Your task to perform on an android device: Do I have any events today? Image 0: 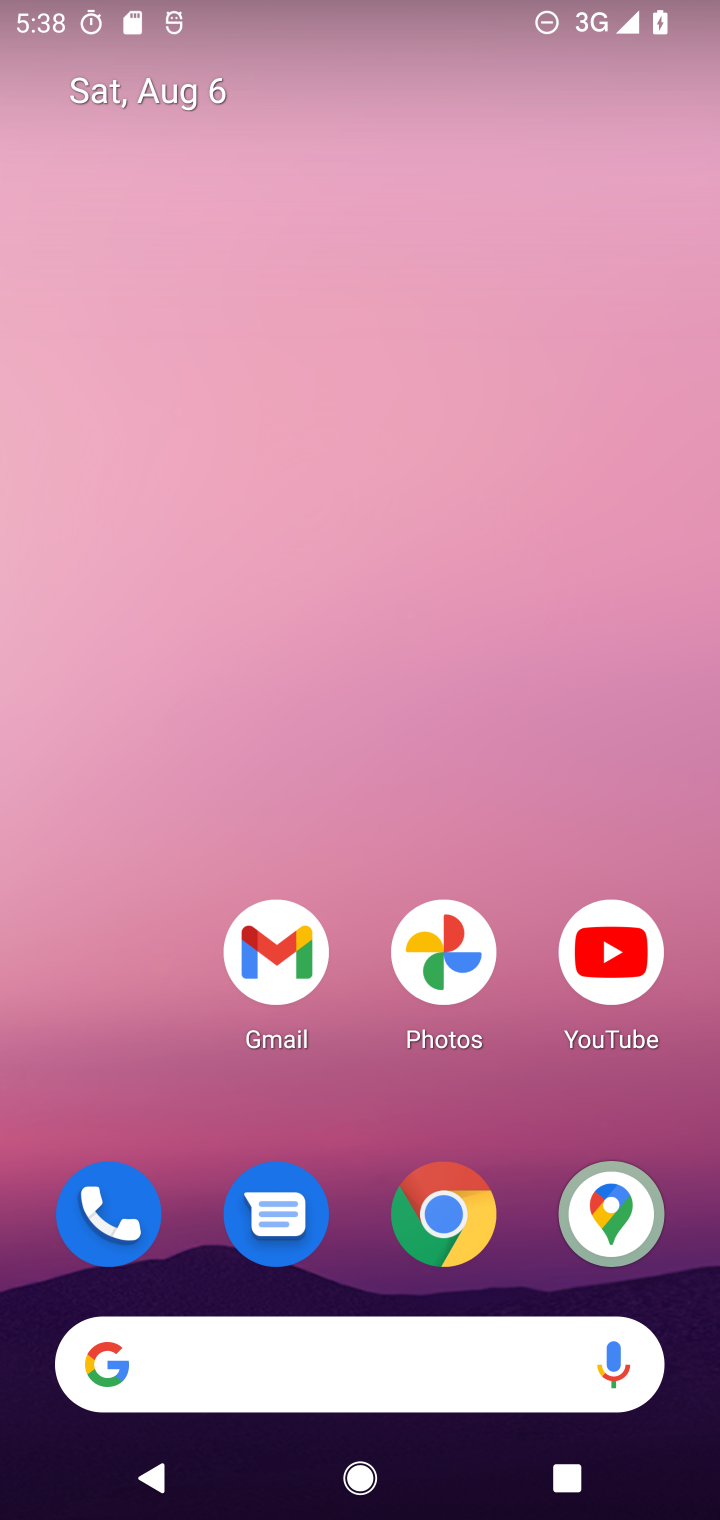
Step 0: drag from (342, 1231) to (291, 220)
Your task to perform on an android device: Do I have any events today? Image 1: 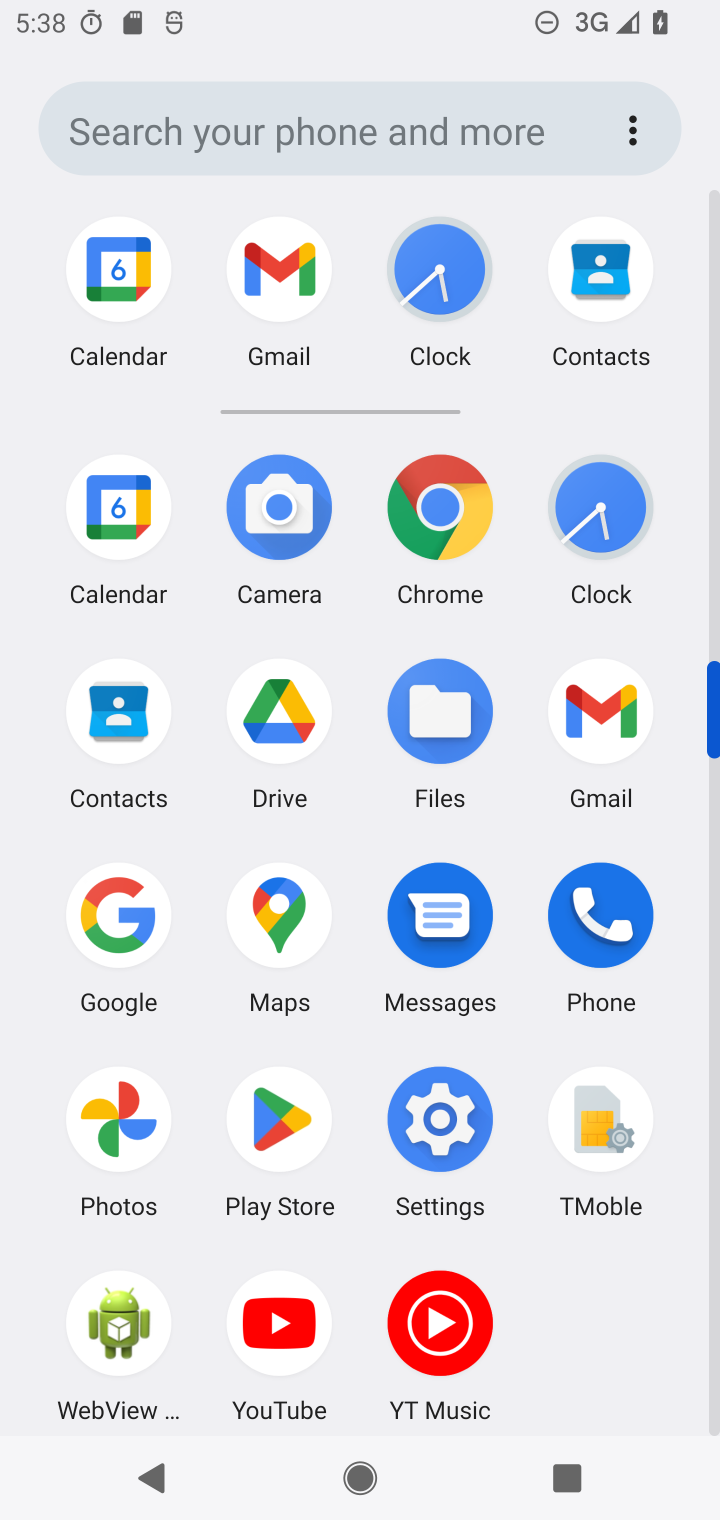
Step 1: click (112, 531)
Your task to perform on an android device: Do I have any events today? Image 2: 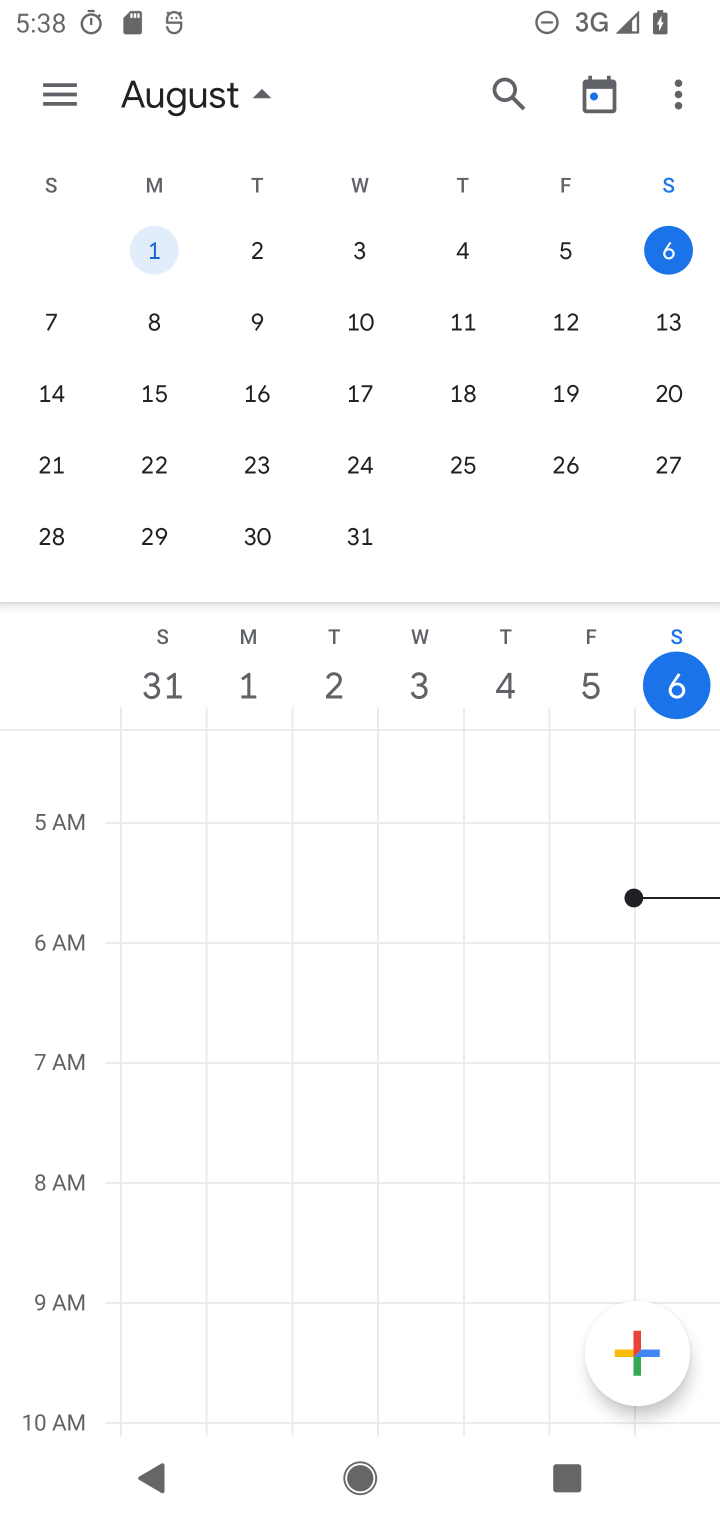
Step 2: click (684, 254)
Your task to perform on an android device: Do I have any events today? Image 3: 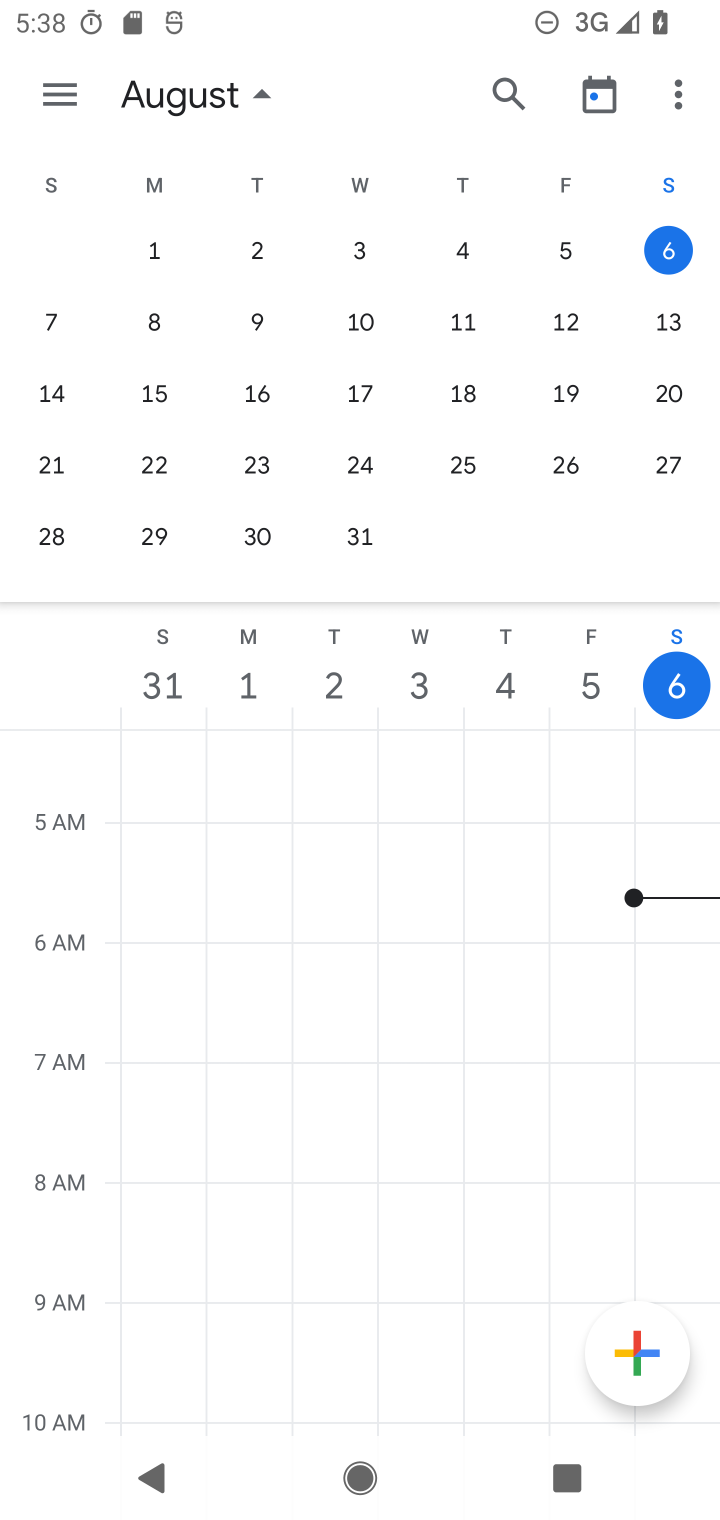
Step 3: task complete